Your task to perform on an android device: toggle javascript in the chrome app Image 0: 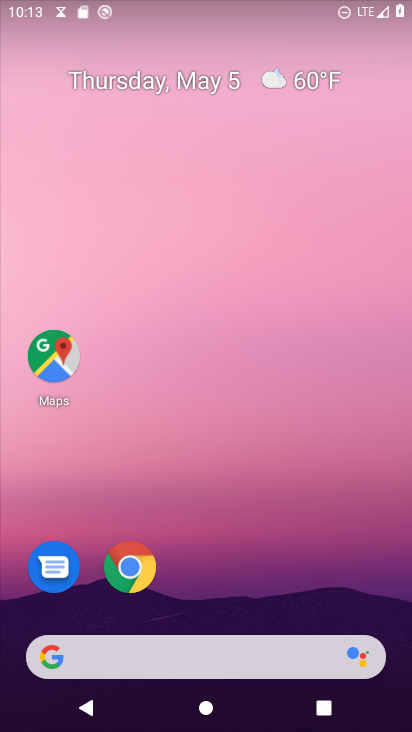
Step 0: click (126, 569)
Your task to perform on an android device: toggle javascript in the chrome app Image 1: 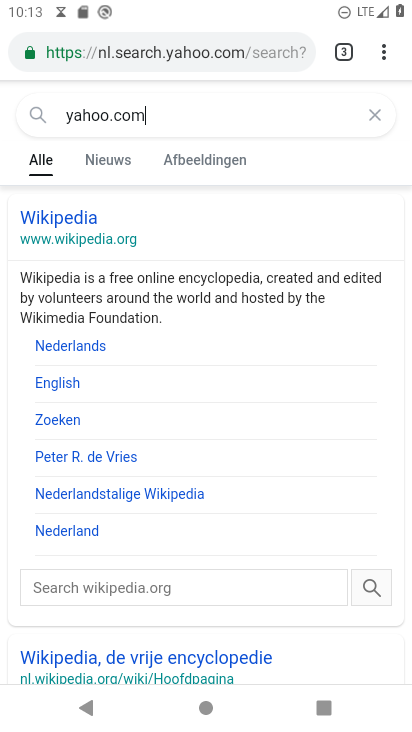
Step 1: drag from (385, 52) to (247, 571)
Your task to perform on an android device: toggle javascript in the chrome app Image 2: 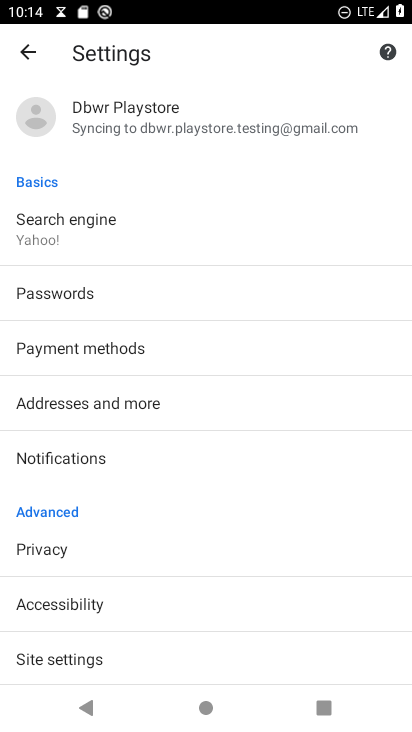
Step 2: click (98, 659)
Your task to perform on an android device: toggle javascript in the chrome app Image 3: 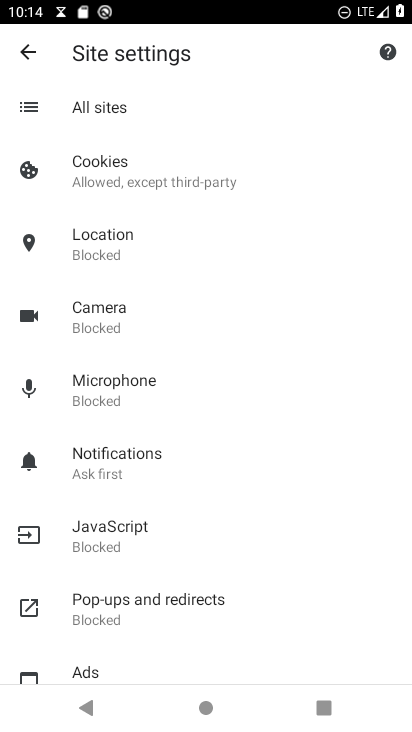
Step 3: click (119, 525)
Your task to perform on an android device: toggle javascript in the chrome app Image 4: 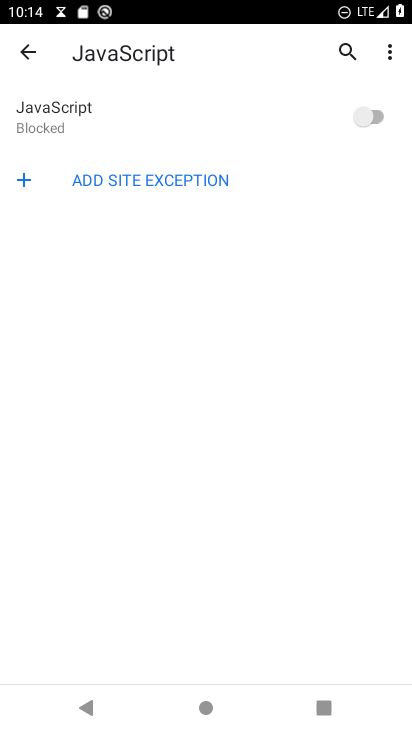
Step 4: click (374, 119)
Your task to perform on an android device: toggle javascript in the chrome app Image 5: 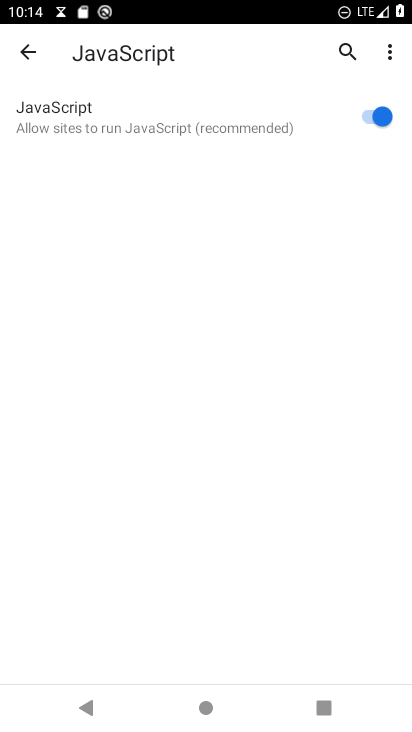
Step 5: task complete